Your task to perform on an android device: Turn on the flashlight Image 0: 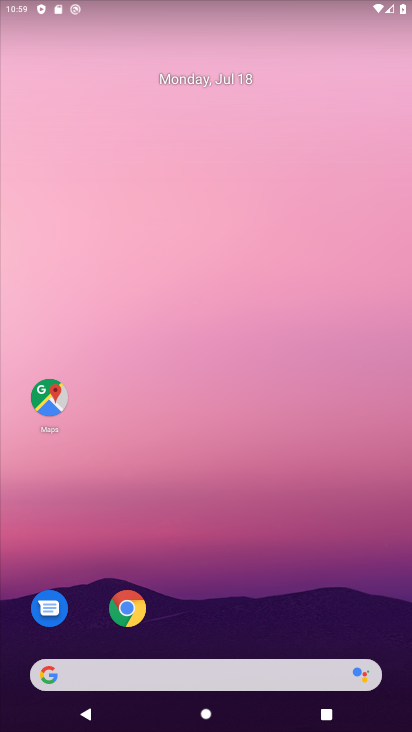
Step 0: drag from (266, 5) to (288, 615)
Your task to perform on an android device: Turn on the flashlight Image 1: 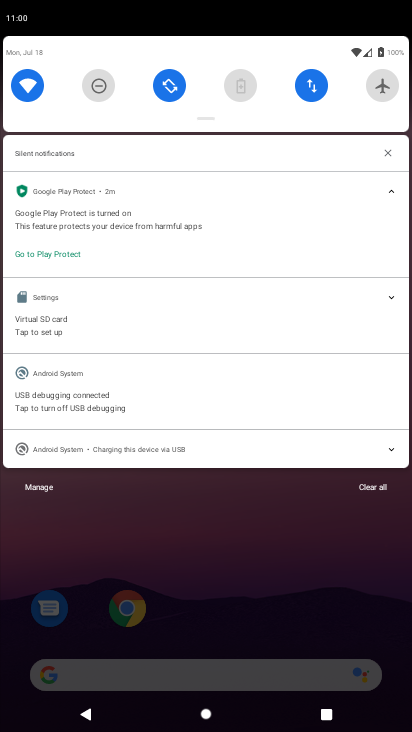
Step 1: drag from (128, 77) to (166, 535)
Your task to perform on an android device: Turn on the flashlight Image 2: 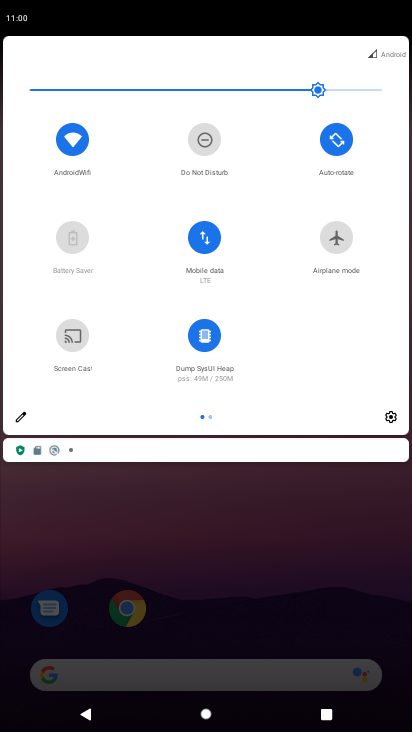
Step 2: click (20, 412)
Your task to perform on an android device: Turn on the flashlight Image 3: 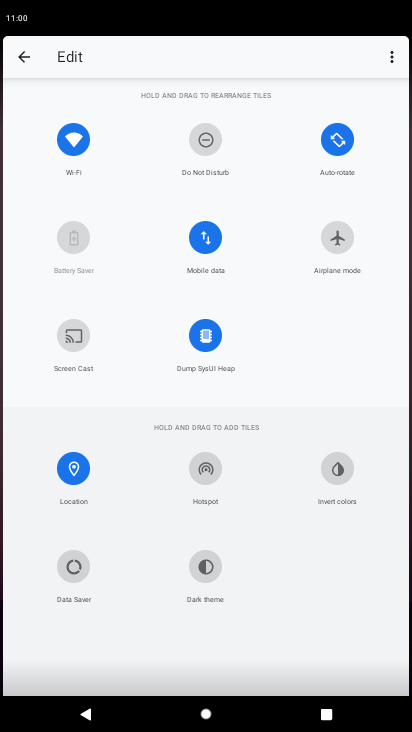
Step 3: task complete